Your task to perform on an android device: Open the phone app and click the voicemail tab. Image 0: 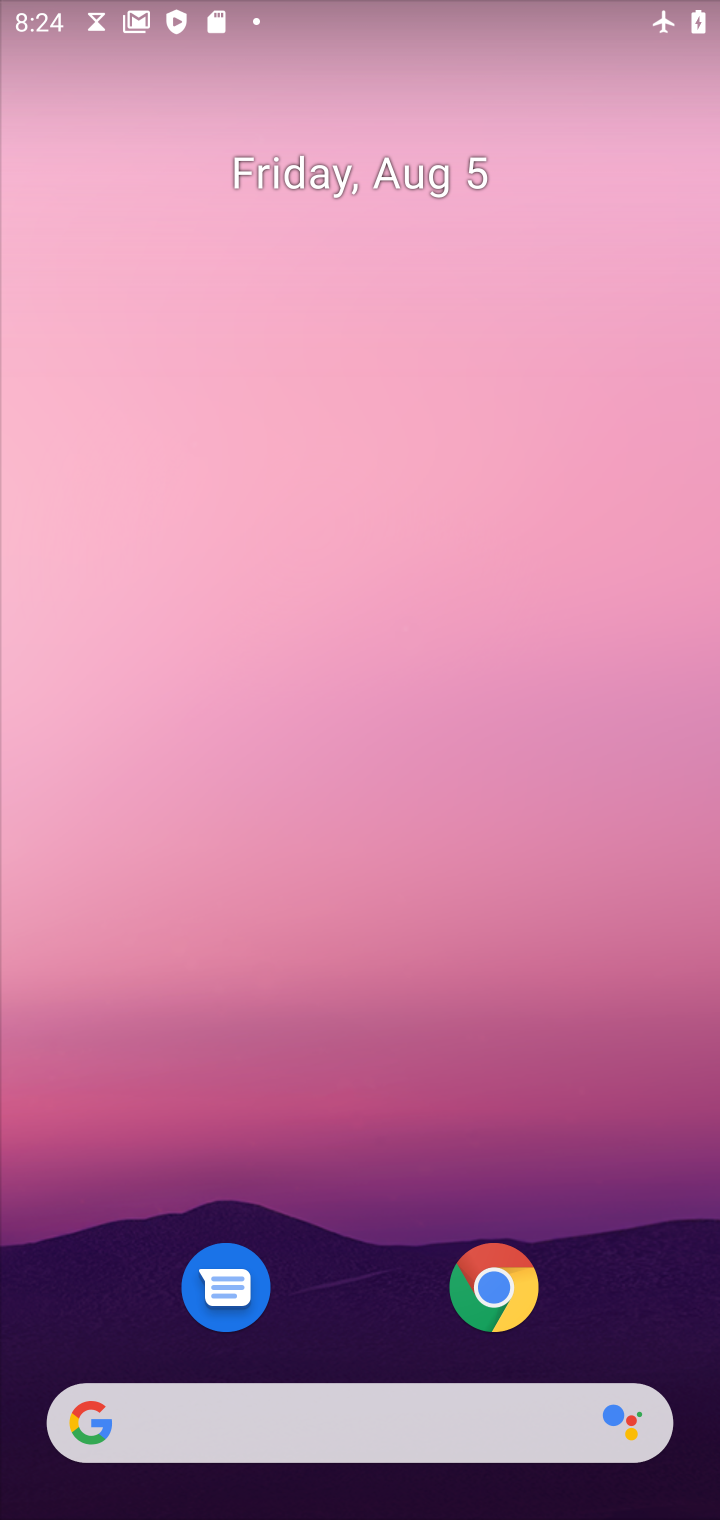
Step 0: drag from (383, 965) to (383, 56)
Your task to perform on an android device: Open the phone app and click the voicemail tab. Image 1: 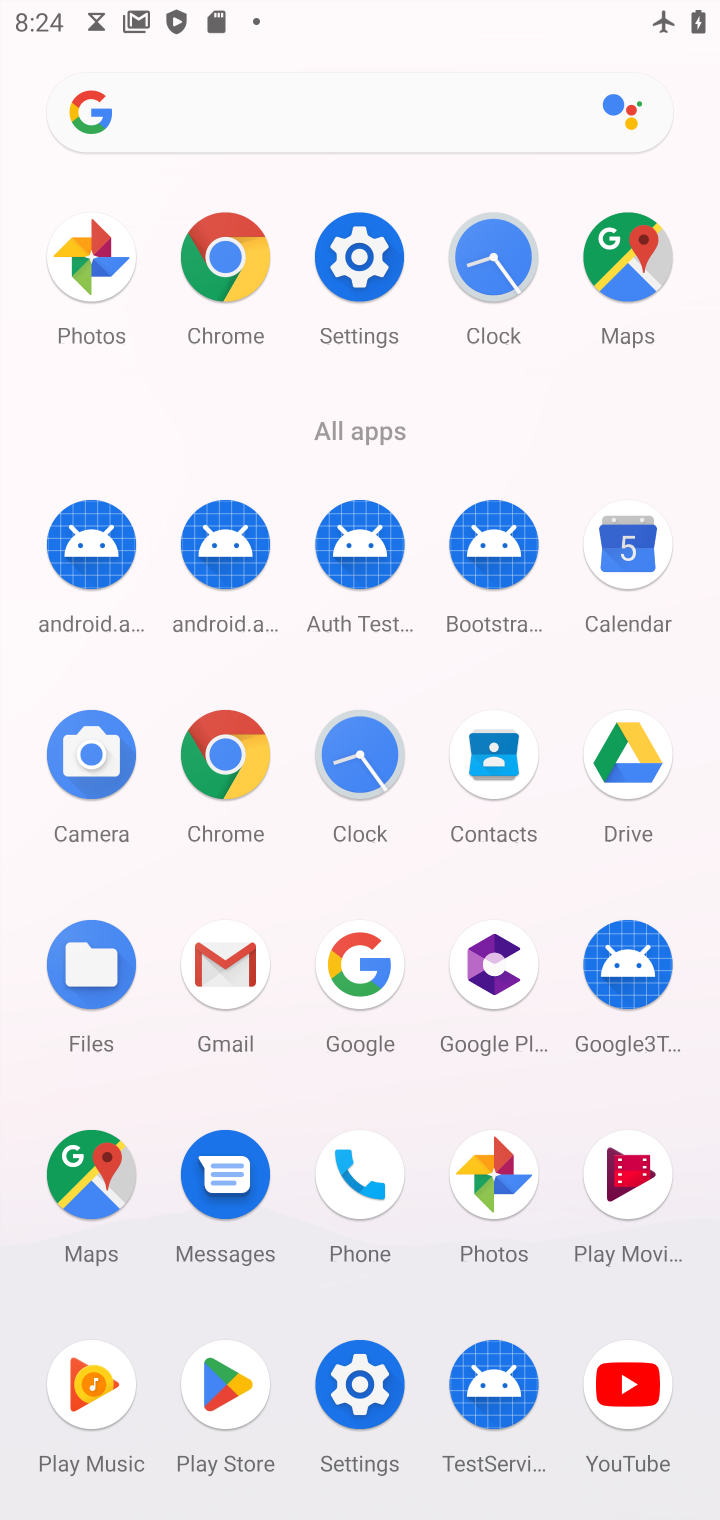
Step 1: click (339, 1163)
Your task to perform on an android device: Open the phone app and click the voicemail tab. Image 2: 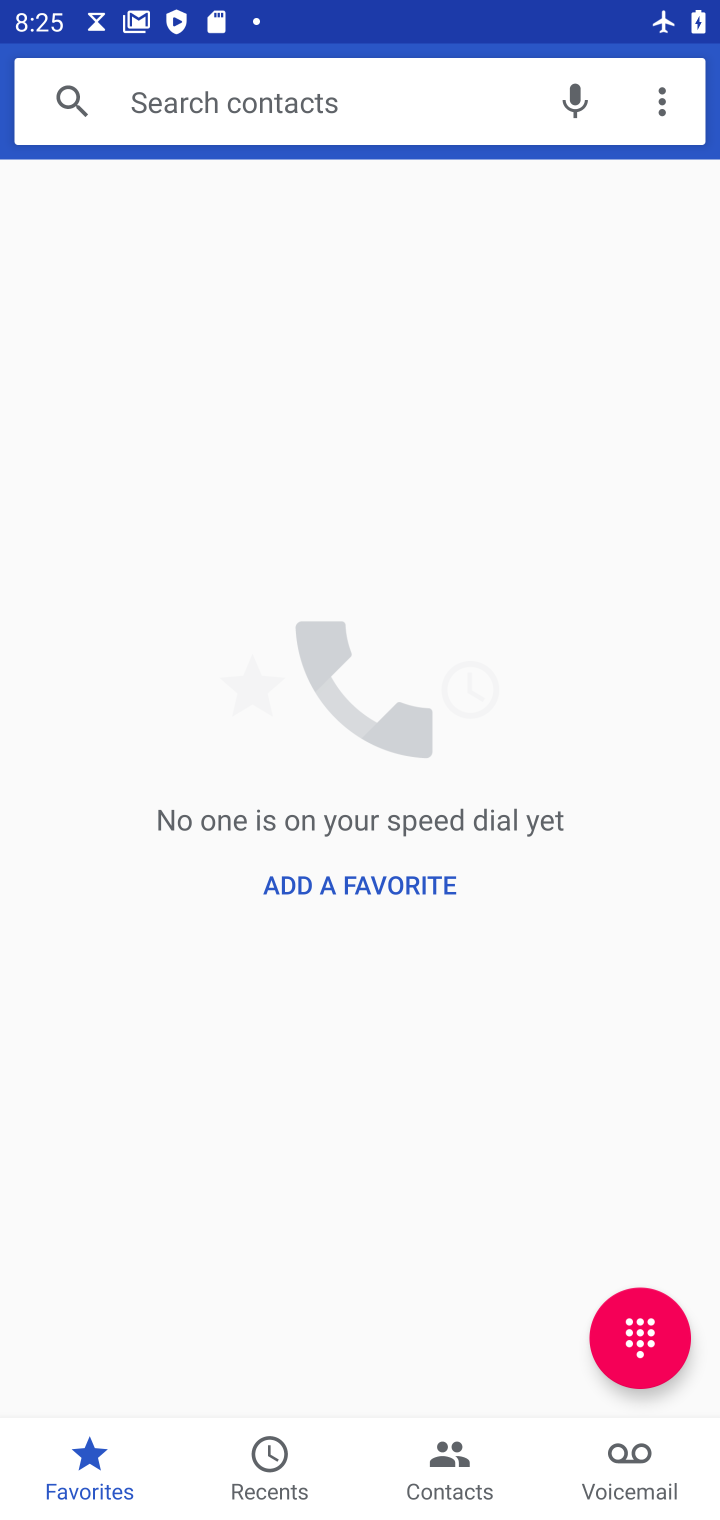
Step 2: click (626, 1477)
Your task to perform on an android device: Open the phone app and click the voicemail tab. Image 3: 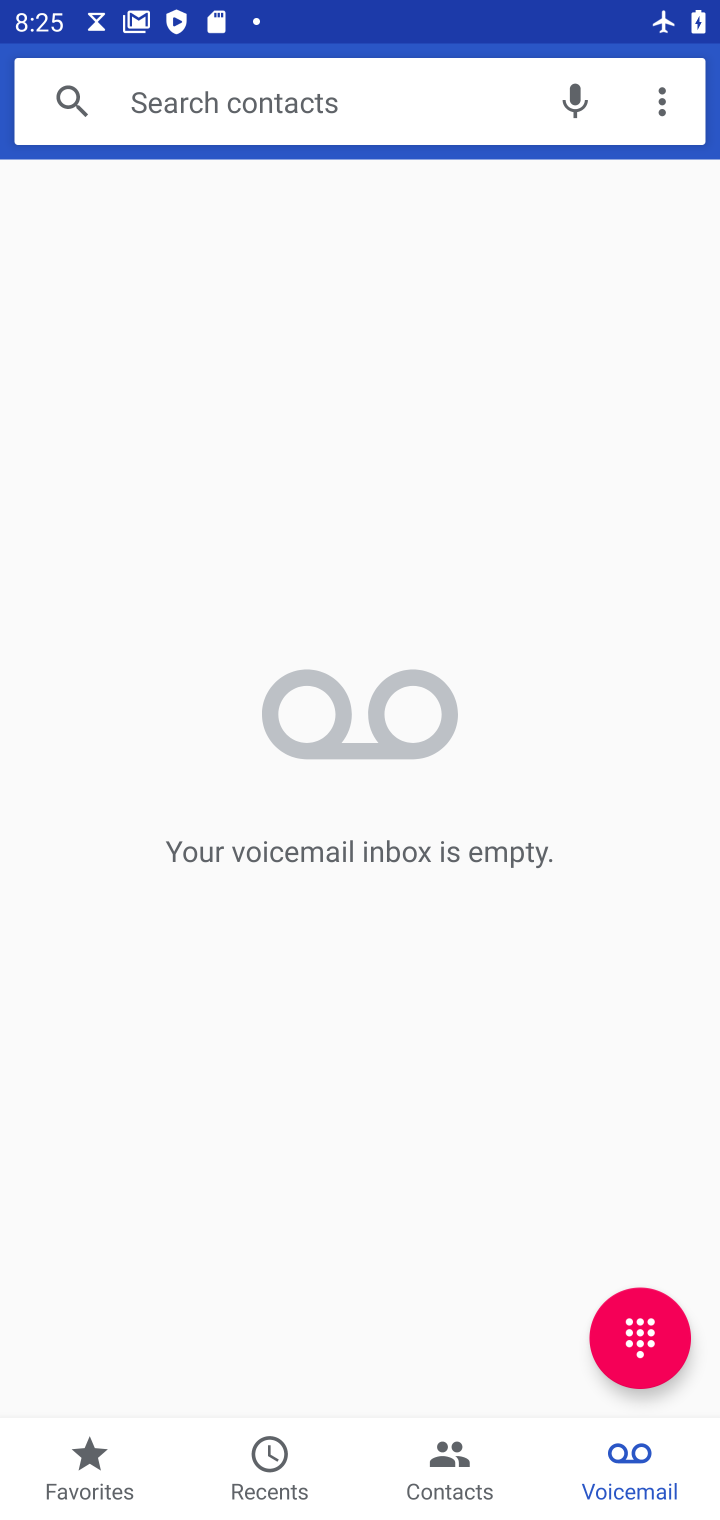
Step 3: task complete